Your task to perform on an android device: Is it going to rain tomorrow? Image 0: 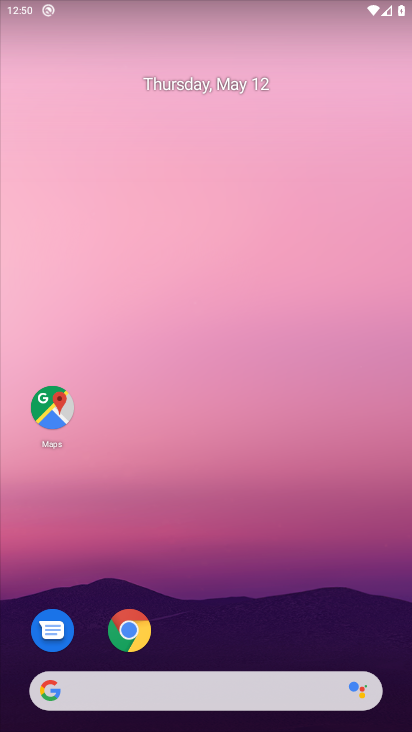
Step 0: drag from (224, 671) to (194, 246)
Your task to perform on an android device: Is it going to rain tomorrow? Image 1: 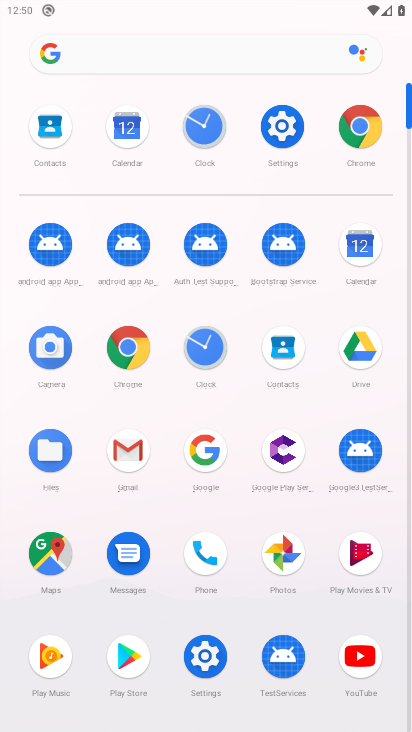
Step 1: click (132, 346)
Your task to perform on an android device: Is it going to rain tomorrow? Image 2: 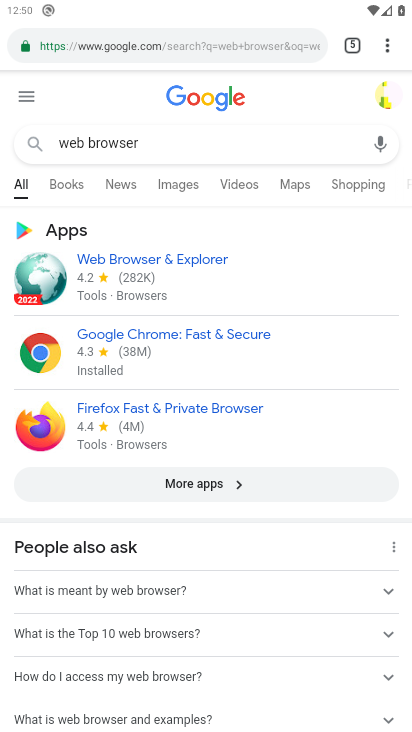
Step 2: click (240, 45)
Your task to perform on an android device: Is it going to rain tomorrow? Image 3: 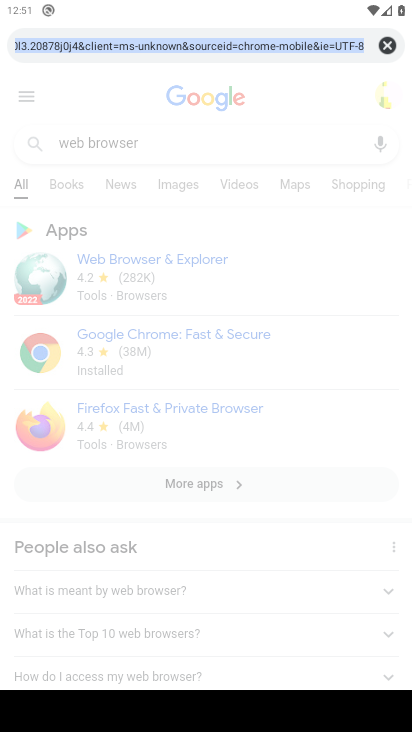
Step 3: click (292, 49)
Your task to perform on an android device: Is it going to rain tomorrow? Image 4: 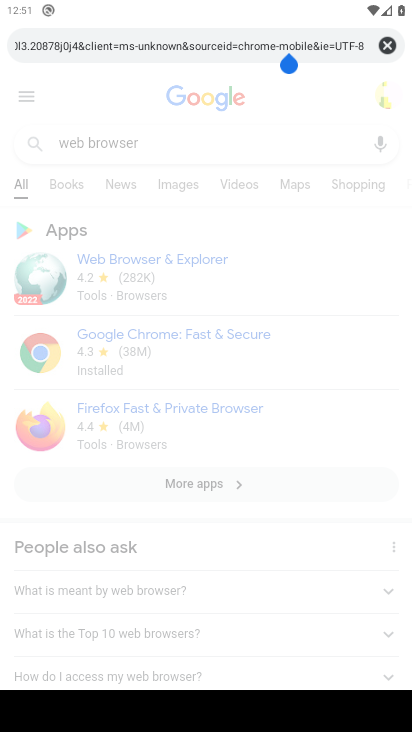
Step 4: click (387, 41)
Your task to perform on an android device: Is it going to rain tomorrow? Image 5: 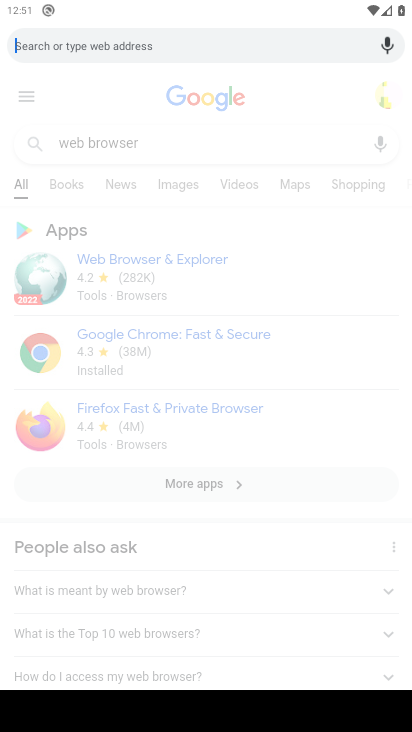
Step 5: type "is it going to rain tomorrow?"
Your task to perform on an android device: Is it going to rain tomorrow? Image 6: 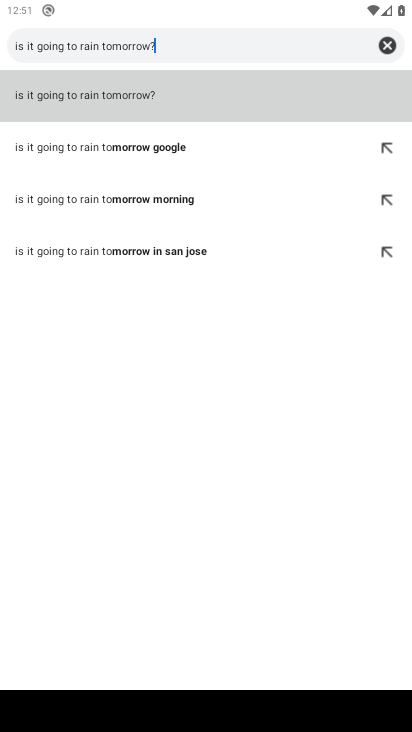
Step 6: click (53, 90)
Your task to perform on an android device: Is it going to rain tomorrow? Image 7: 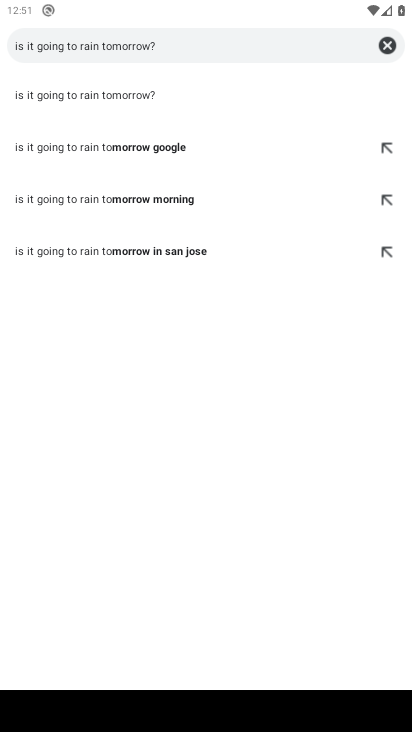
Step 7: click (90, 96)
Your task to perform on an android device: Is it going to rain tomorrow? Image 8: 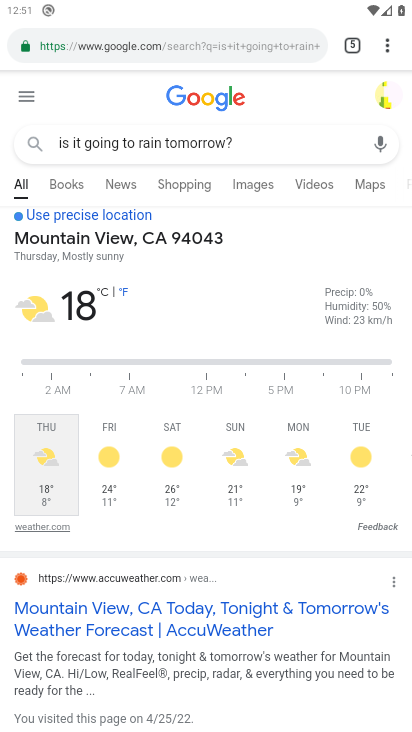
Step 8: task complete